Your task to perform on an android device: move a message to another label in the gmail app Image 0: 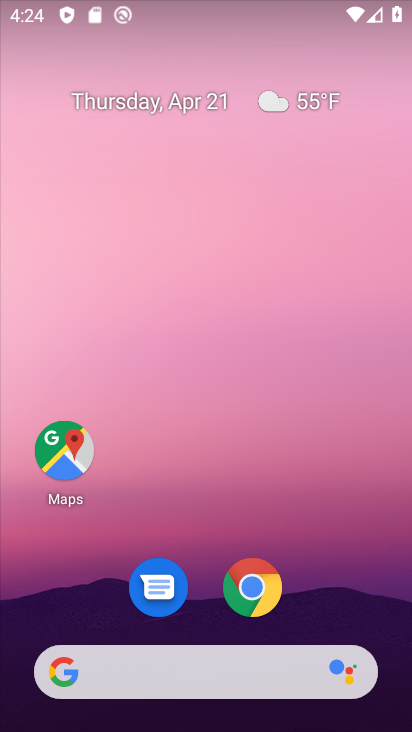
Step 0: drag from (212, 637) to (283, 93)
Your task to perform on an android device: move a message to another label in the gmail app Image 1: 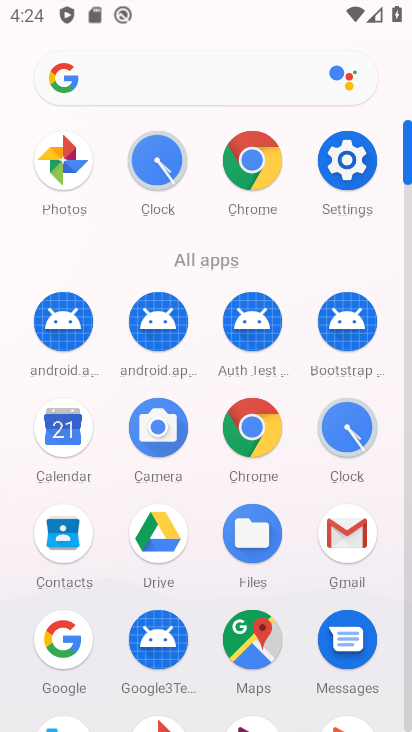
Step 1: click (332, 540)
Your task to perform on an android device: move a message to another label in the gmail app Image 2: 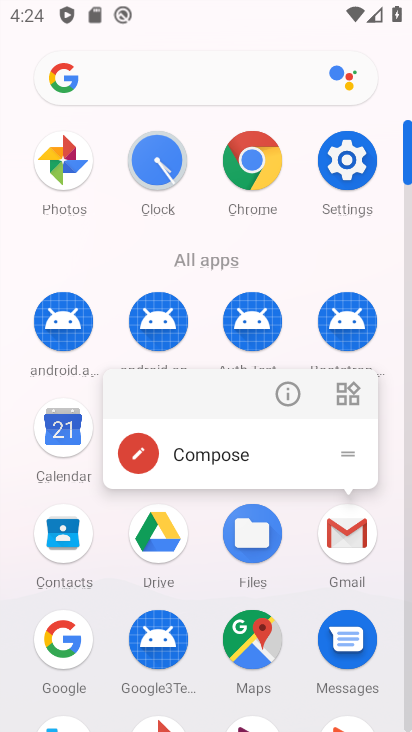
Step 2: click (339, 539)
Your task to perform on an android device: move a message to another label in the gmail app Image 3: 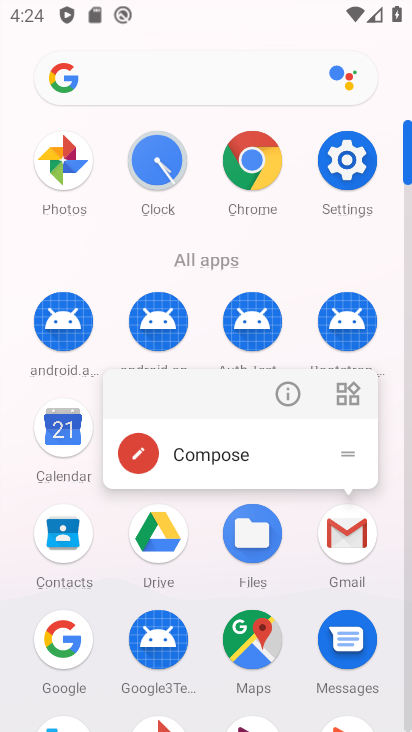
Step 3: click (339, 539)
Your task to perform on an android device: move a message to another label in the gmail app Image 4: 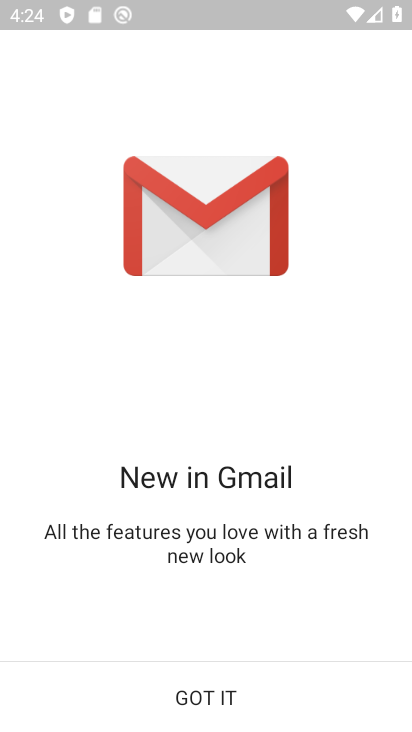
Step 4: click (225, 693)
Your task to perform on an android device: move a message to another label in the gmail app Image 5: 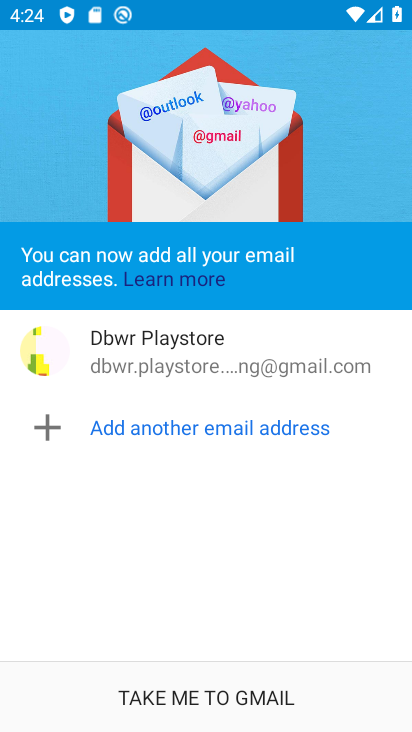
Step 5: click (226, 692)
Your task to perform on an android device: move a message to another label in the gmail app Image 6: 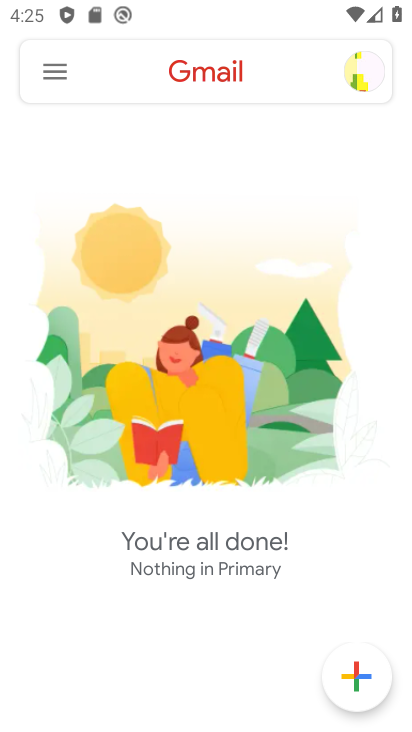
Step 6: click (45, 74)
Your task to perform on an android device: move a message to another label in the gmail app Image 7: 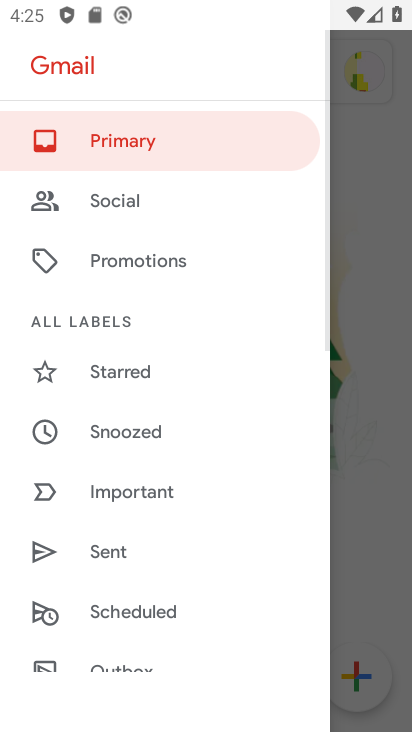
Step 7: drag from (114, 639) to (177, 309)
Your task to perform on an android device: move a message to another label in the gmail app Image 8: 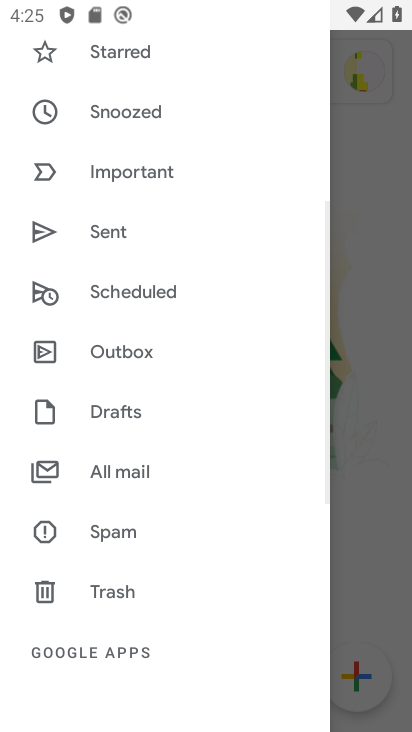
Step 8: click (171, 478)
Your task to perform on an android device: move a message to another label in the gmail app Image 9: 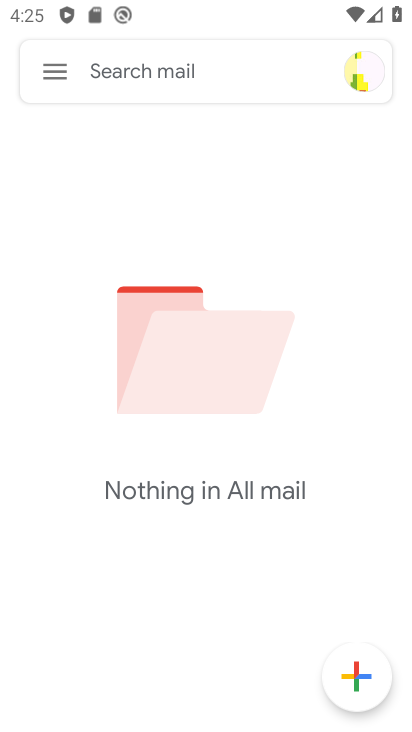
Step 9: task complete